Your task to perform on an android device: turn smart compose on in the gmail app Image 0: 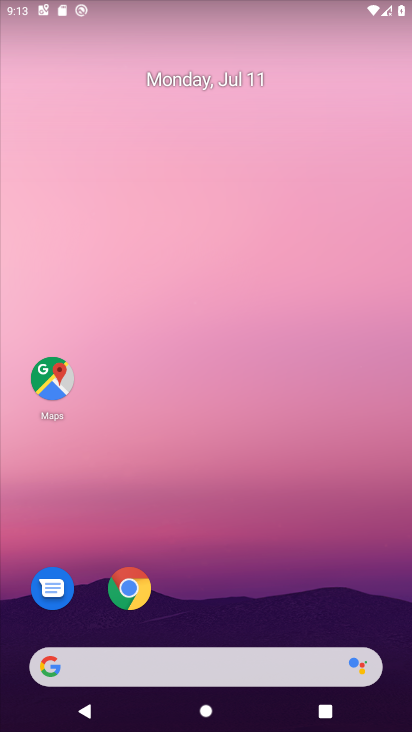
Step 0: drag from (217, 679) to (217, 302)
Your task to perform on an android device: turn smart compose on in the gmail app Image 1: 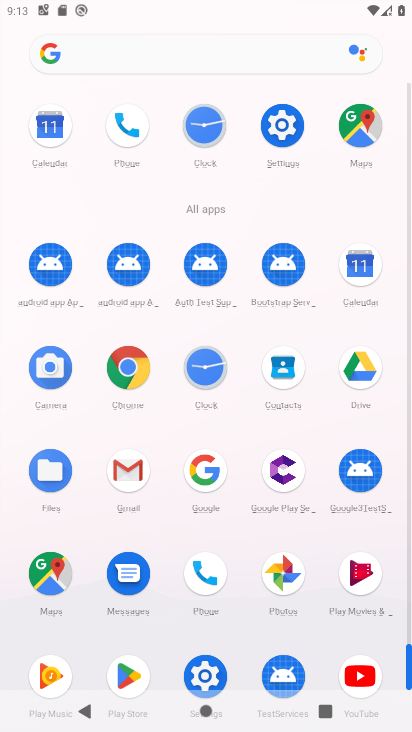
Step 1: click (121, 461)
Your task to perform on an android device: turn smart compose on in the gmail app Image 2: 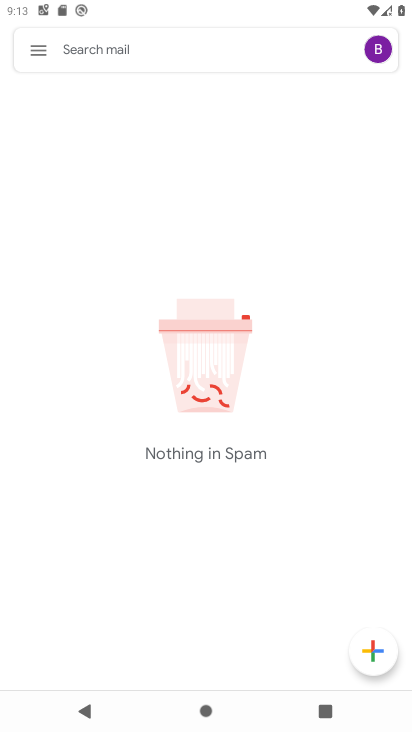
Step 2: click (32, 54)
Your task to perform on an android device: turn smart compose on in the gmail app Image 3: 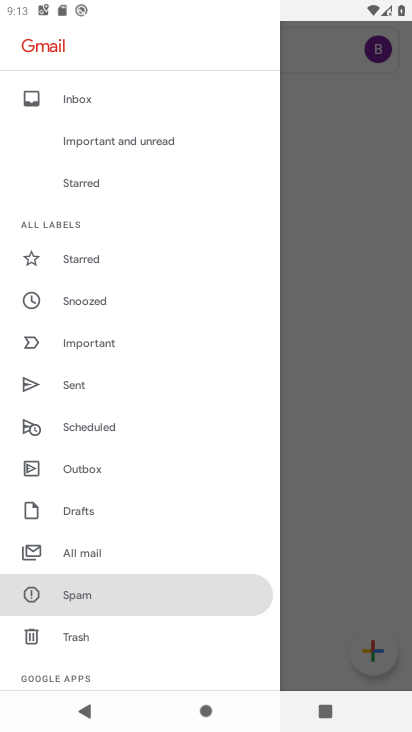
Step 3: drag from (129, 566) to (179, 183)
Your task to perform on an android device: turn smart compose on in the gmail app Image 4: 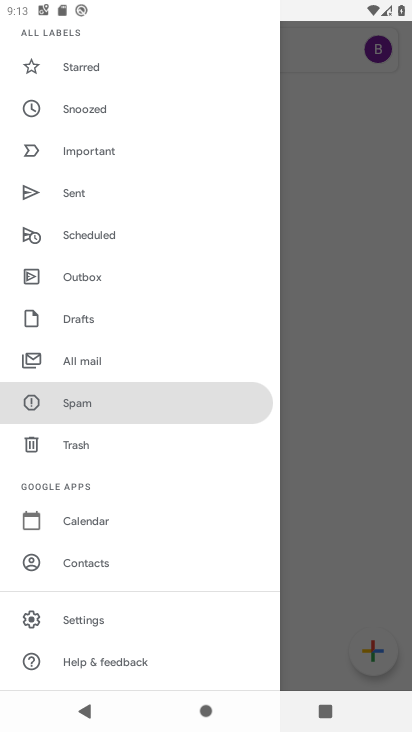
Step 4: click (91, 615)
Your task to perform on an android device: turn smart compose on in the gmail app Image 5: 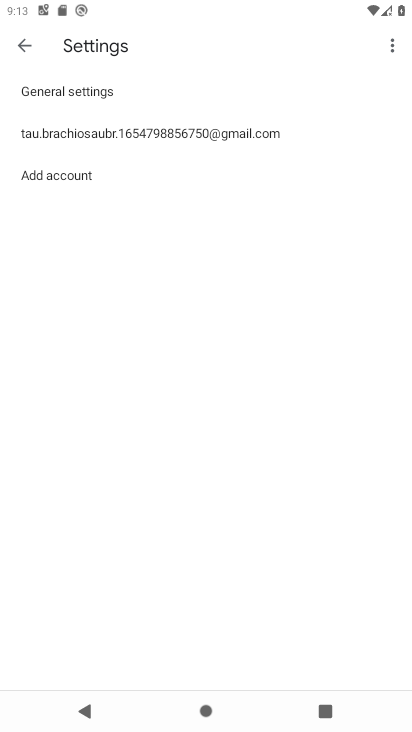
Step 5: click (106, 132)
Your task to perform on an android device: turn smart compose on in the gmail app Image 6: 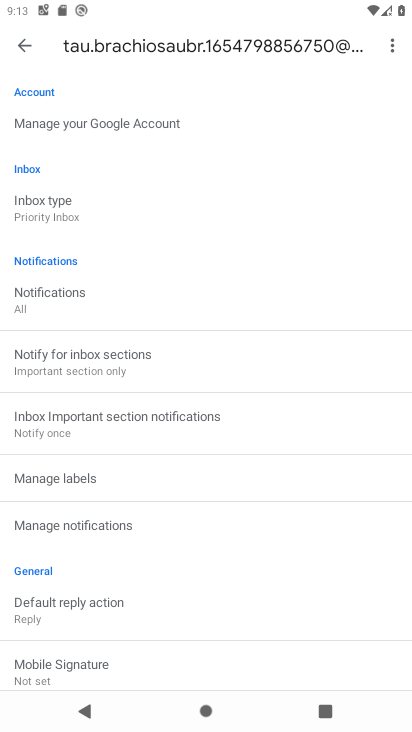
Step 6: task complete